Your task to perform on an android device: What is the recent news? Image 0: 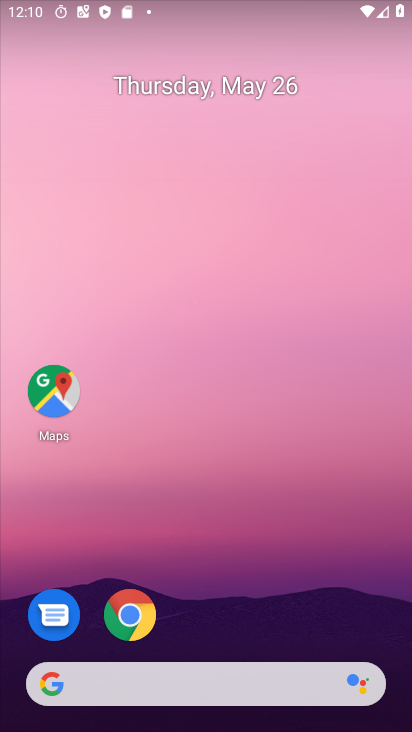
Step 0: drag from (260, 633) to (181, 192)
Your task to perform on an android device: What is the recent news? Image 1: 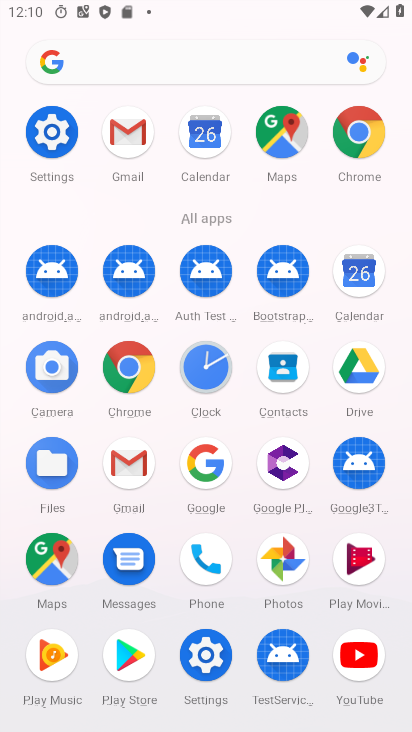
Step 1: click (356, 142)
Your task to perform on an android device: What is the recent news? Image 2: 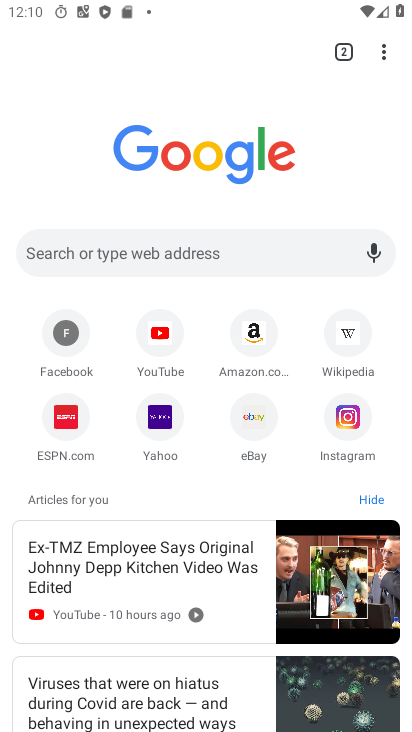
Step 2: click (294, 243)
Your task to perform on an android device: What is the recent news? Image 3: 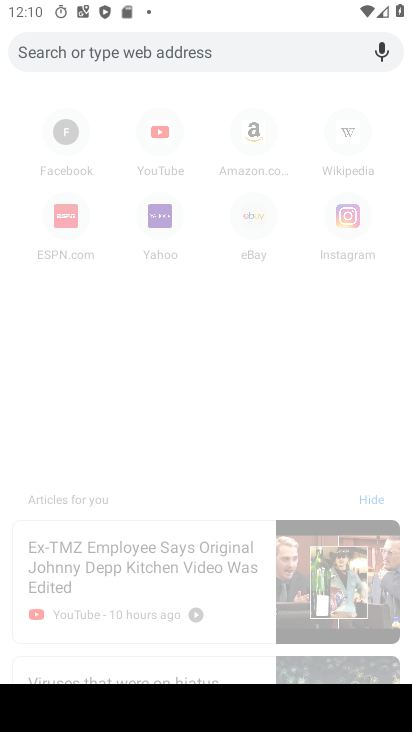
Step 3: type "What is the recent news?"
Your task to perform on an android device: What is the recent news? Image 4: 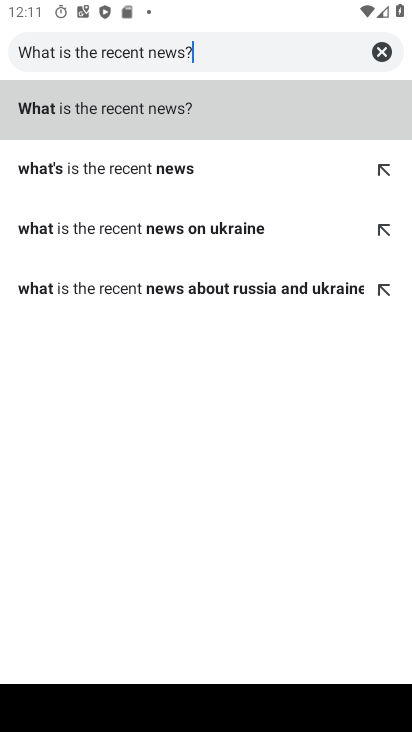
Step 4: click (123, 111)
Your task to perform on an android device: What is the recent news? Image 5: 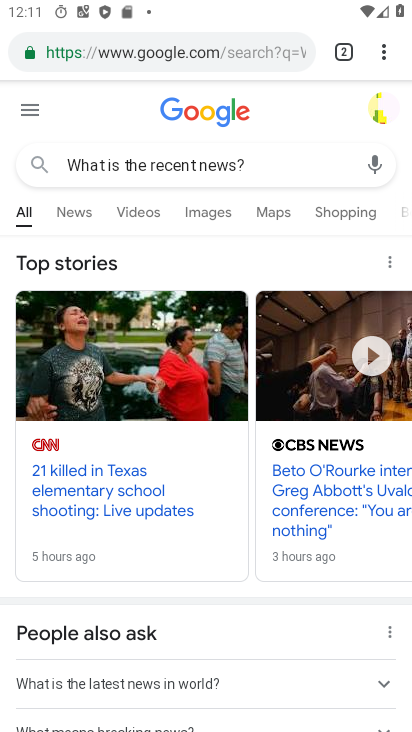
Step 5: task complete